Your task to perform on an android device: all mails in gmail Image 0: 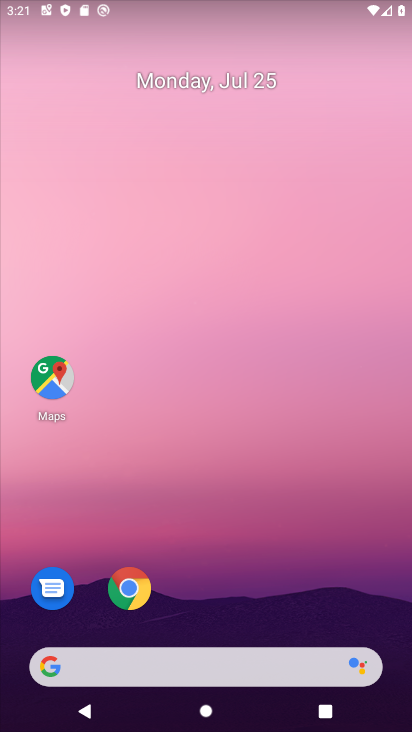
Step 0: drag from (188, 486) to (220, 20)
Your task to perform on an android device: all mails in gmail Image 1: 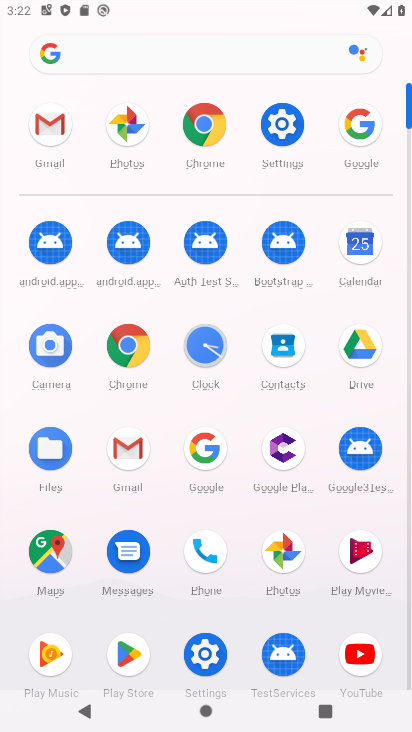
Step 1: click (65, 146)
Your task to perform on an android device: all mails in gmail Image 2: 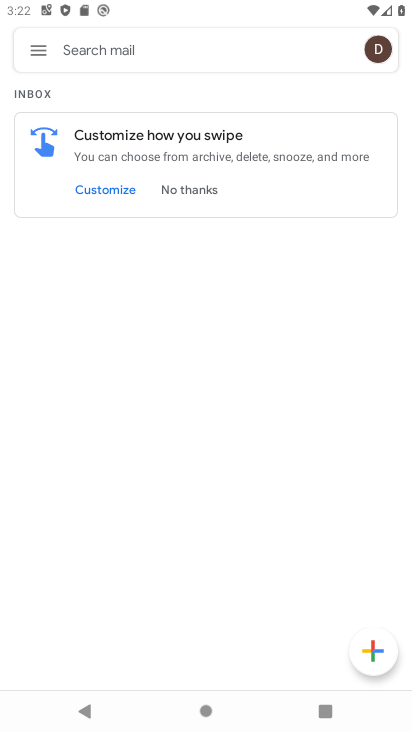
Step 2: click (39, 59)
Your task to perform on an android device: all mails in gmail Image 3: 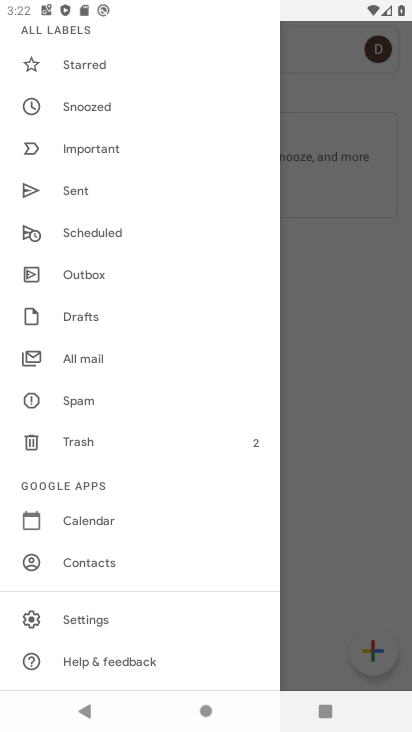
Step 3: click (77, 361)
Your task to perform on an android device: all mails in gmail Image 4: 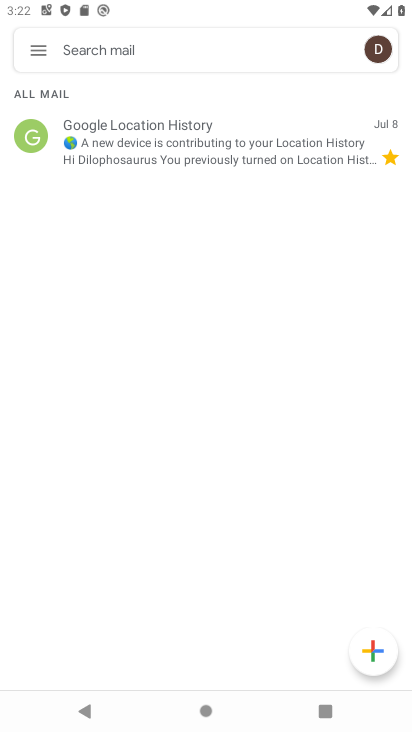
Step 4: click (43, 40)
Your task to perform on an android device: all mails in gmail Image 5: 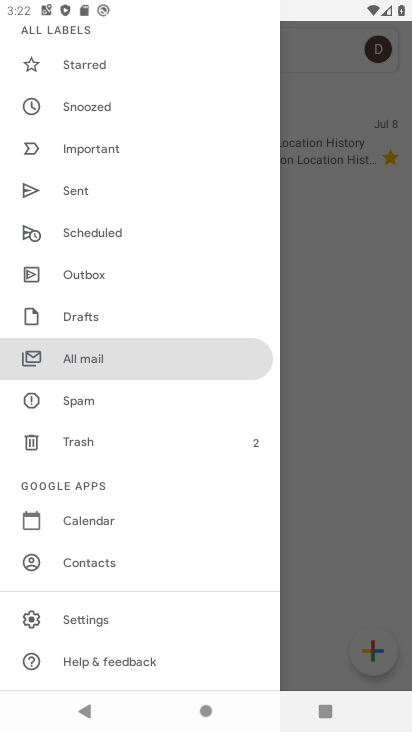
Step 5: task complete